Your task to perform on an android device: Go to calendar. Show me events next week Image 0: 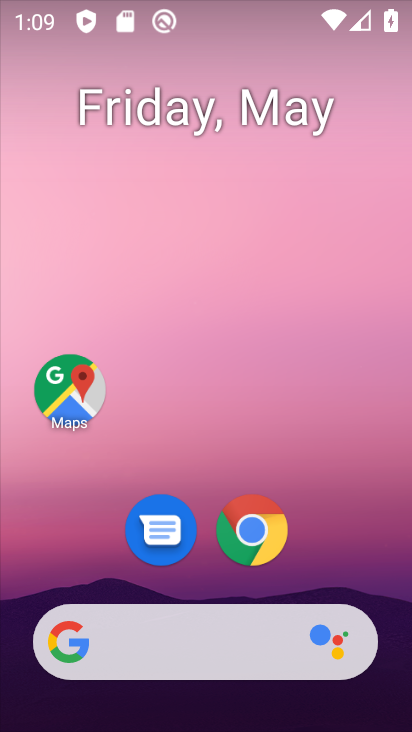
Step 0: drag from (311, 573) to (379, 6)
Your task to perform on an android device: Go to calendar. Show me events next week Image 1: 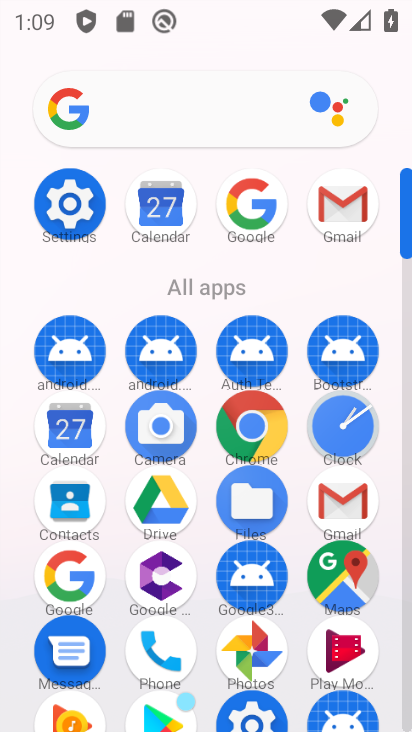
Step 1: click (68, 430)
Your task to perform on an android device: Go to calendar. Show me events next week Image 2: 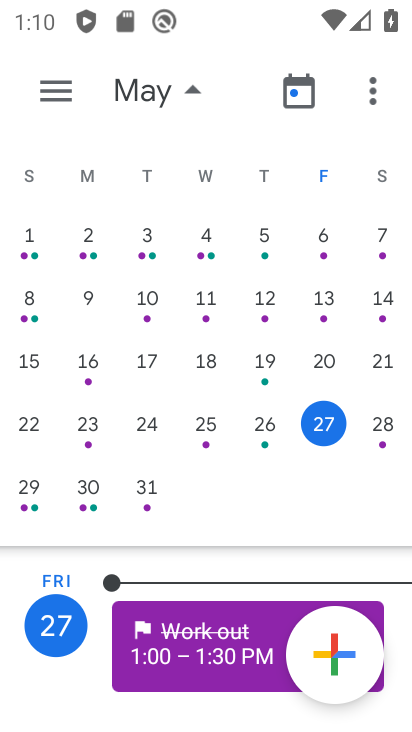
Step 2: click (40, 484)
Your task to perform on an android device: Go to calendar. Show me events next week Image 3: 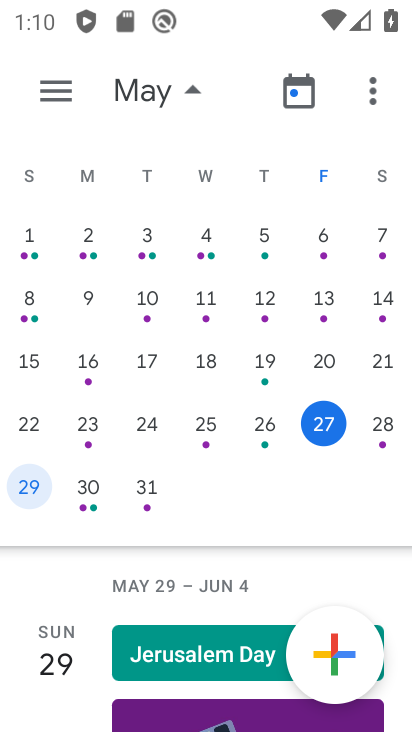
Step 3: task complete